Your task to perform on an android device: change the clock style Image 0: 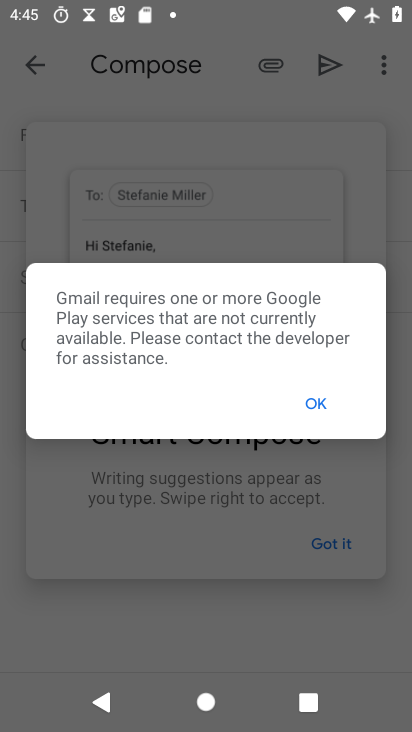
Step 0: press home button
Your task to perform on an android device: change the clock style Image 1: 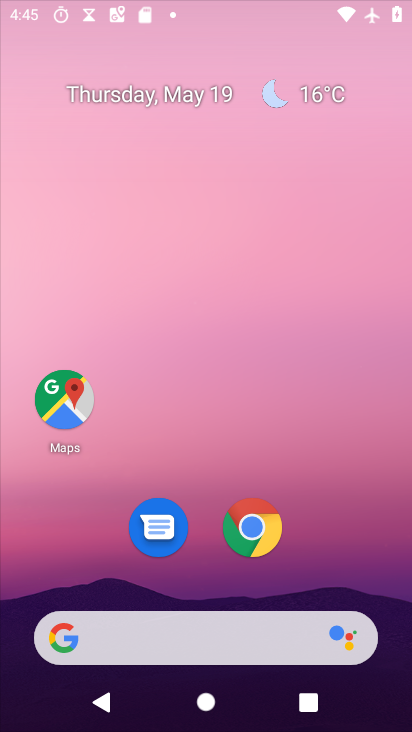
Step 1: drag from (367, 445) to (203, 69)
Your task to perform on an android device: change the clock style Image 2: 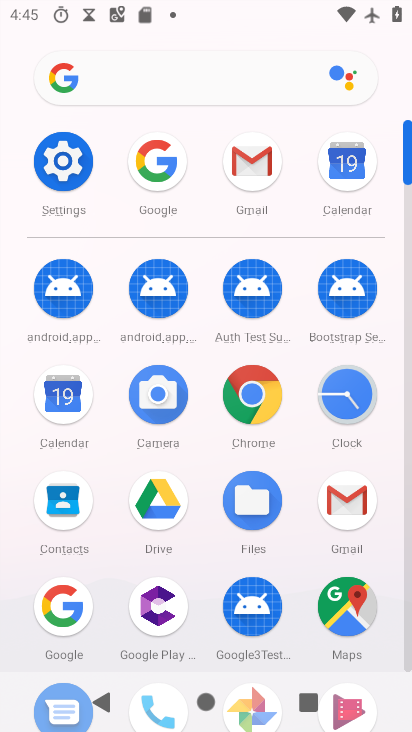
Step 2: click (347, 395)
Your task to perform on an android device: change the clock style Image 3: 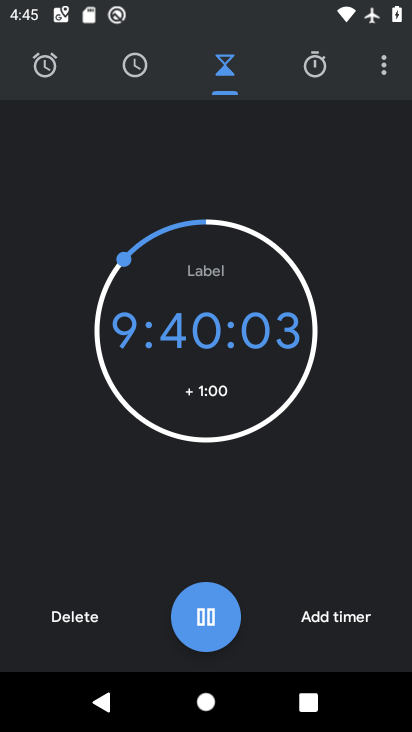
Step 3: click (373, 75)
Your task to perform on an android device: change the clock style Image 4: 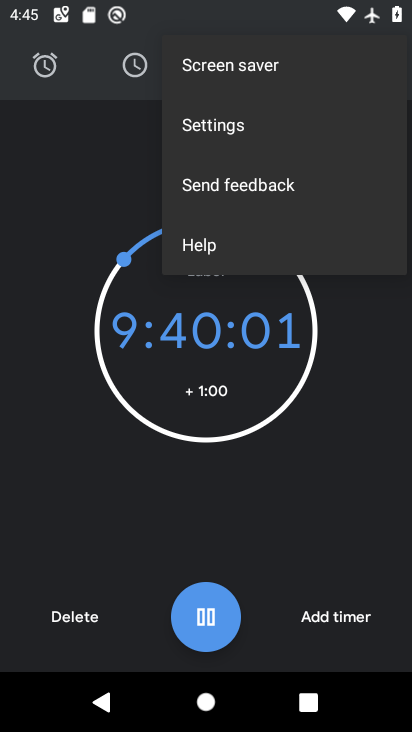
Step 4: click (280, 126)
Your task to perform on an android device: change the clock style Image 5: 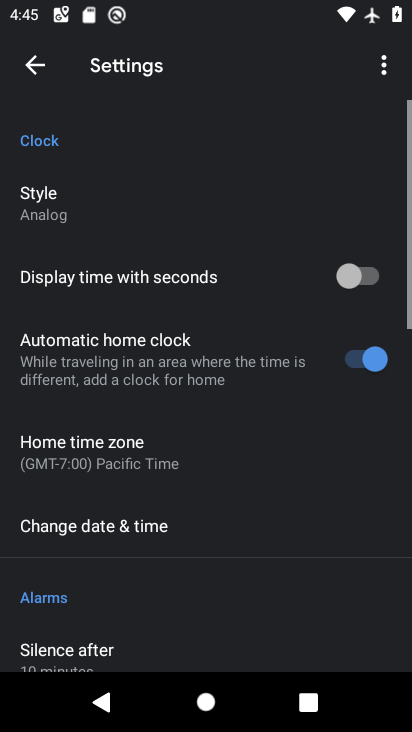
Step 5: click (81, 213)
Your task to perform on an android device: change the clock style Image 6: 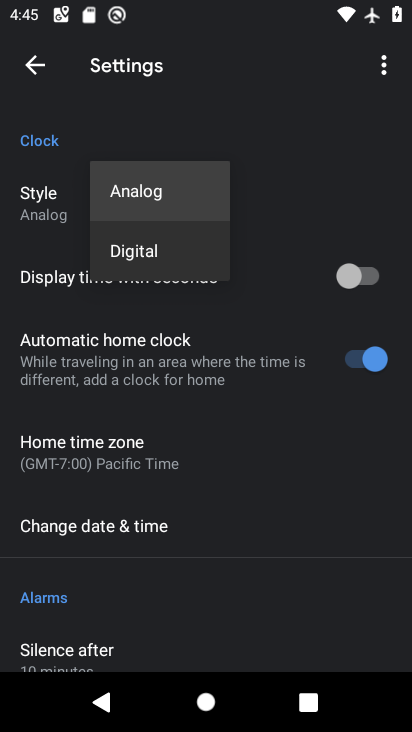
Step 6: click (127, 240)
Your task to perform on an android device: change the clock style Image 7: 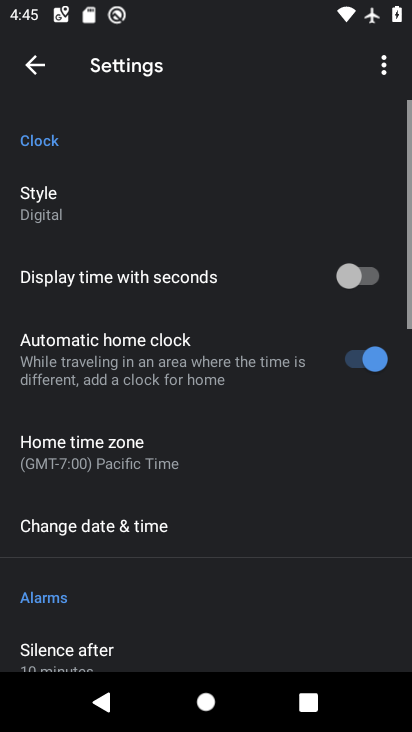
Step 7: task complete